Your task to perform on an android device: turn on sleep mode Image 0: 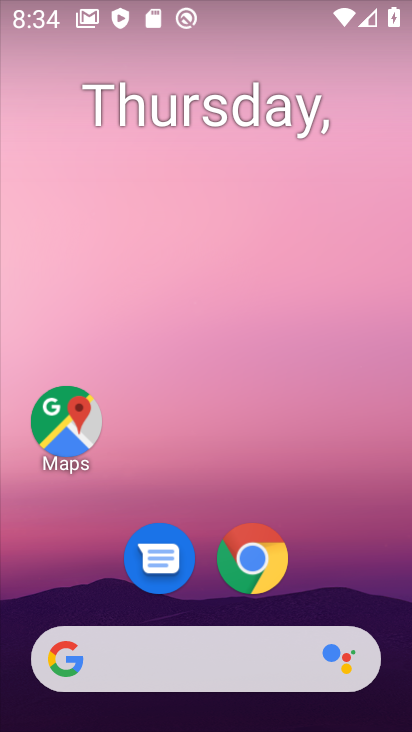
Step 0: drag from (388, 608) to (353, 65)
Your task to perform on an android device: turn on sleep mode Image 1: 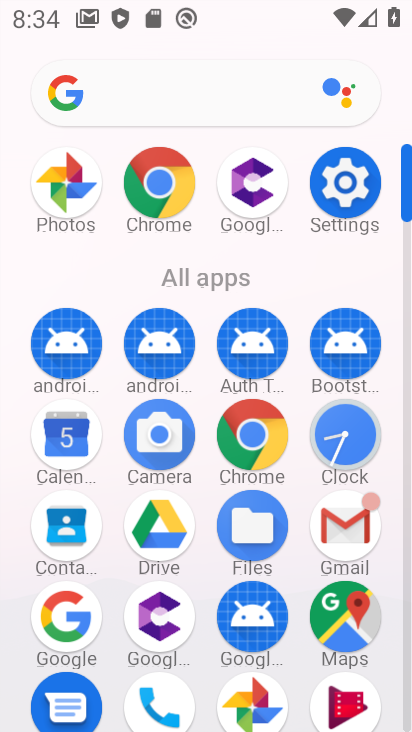
Step 1: click (407, 698)
Your task to perform on an android device: turn on sleep mode Image 2: 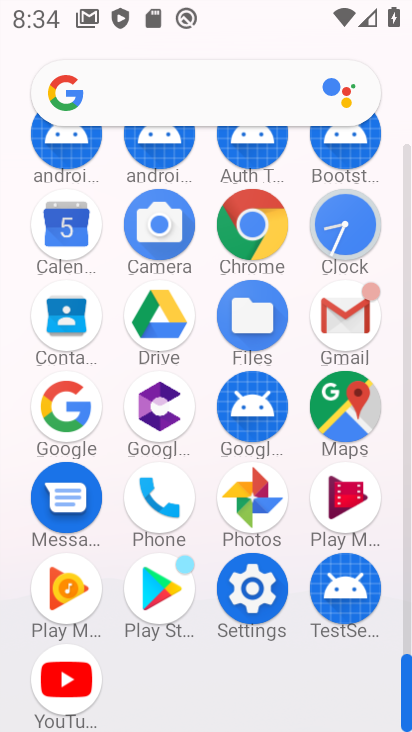
Step 2: click (250, 586)
Your task to perform on an android device: turn on sleep mode Image 3: 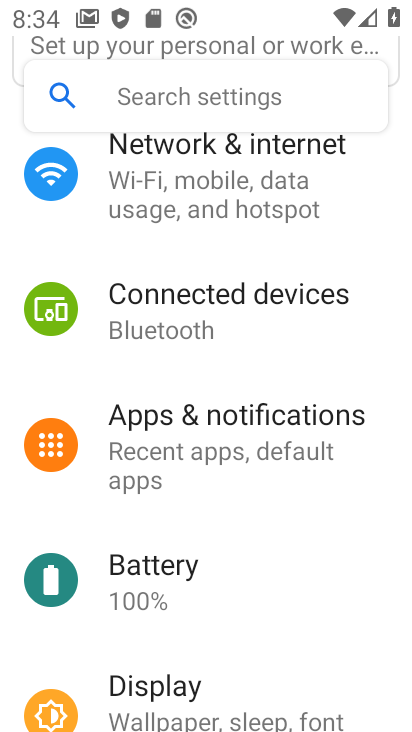
Step 3: drag from (350, 658) to (361, 282)
Your task to perform on an android device: turn on sleep mode Image 4: 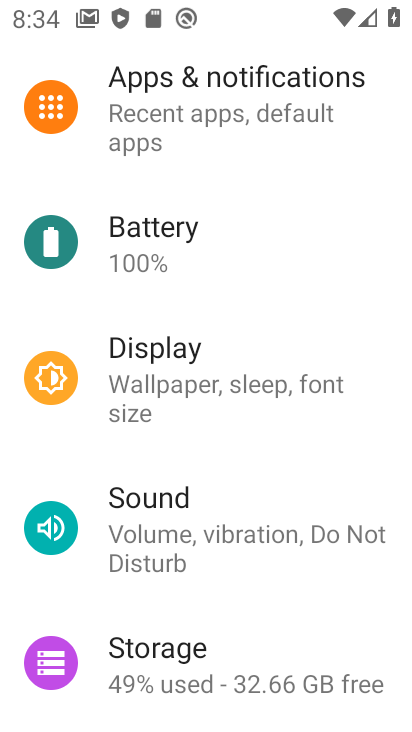
Step 4: click (144, 374)
Your task to perform on an android device: turn on sleep mode Image 5: 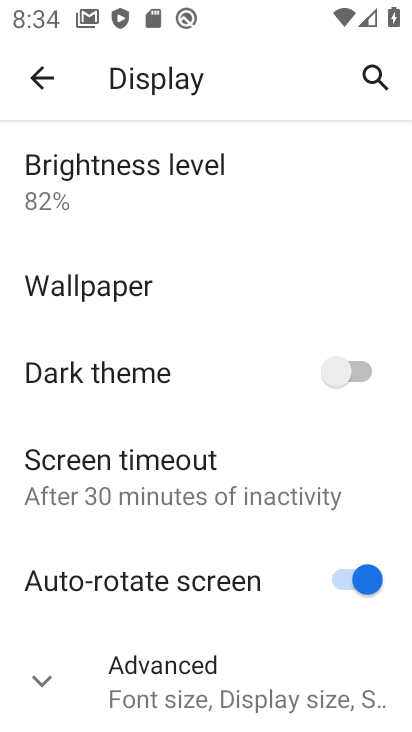
Step 5: click (39, 680)
Your task to perform on an android device: turn on sleep mode Image 6: 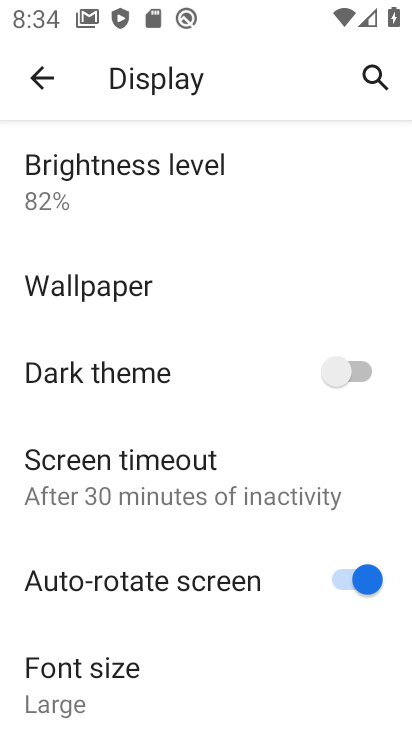
Step 6: task complete